Your task to perform on an android device: Check the news Image 0: 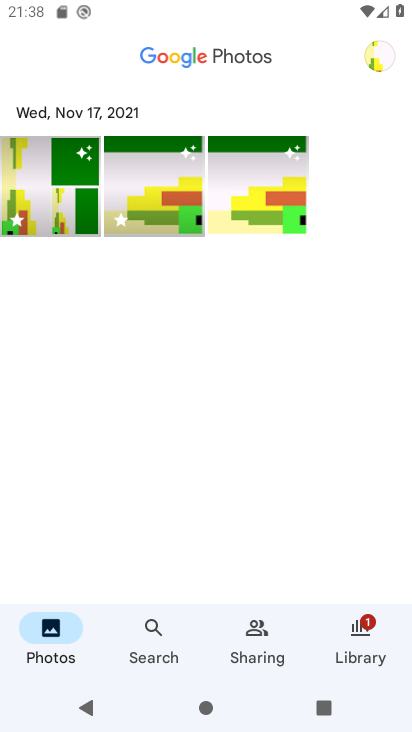
Step 0: press home button
Your task to perform on an android device: Check the news Image 1: 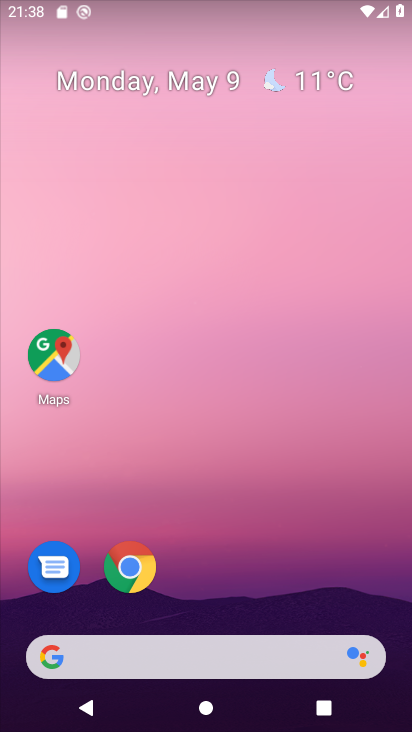
Step 1: drag from (232, 565) to (182, 96)
Your task to perform on an android device: Check the news Image 2: 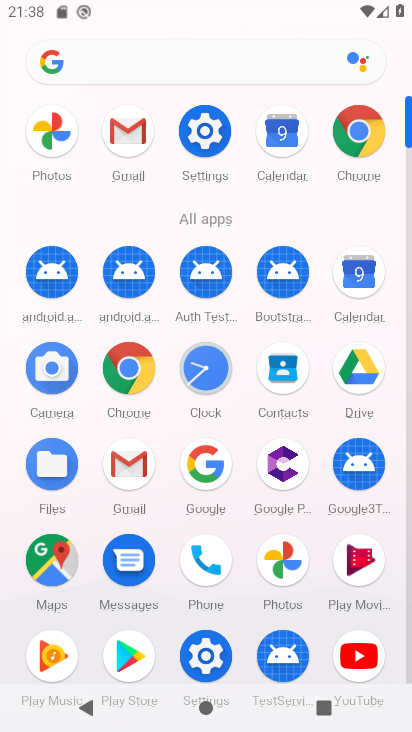
Step 2: click (205, 461)
Your task to perform on an android device: Check the news Image 3: 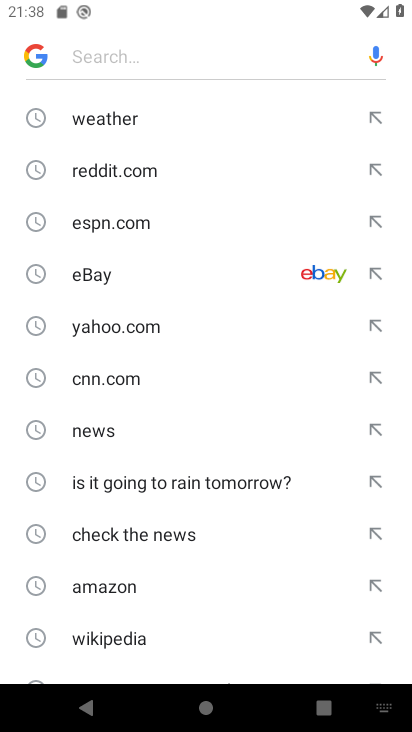
Step 3: click (141, 420)
Your task to perform on an android device: Check the news Image 4: 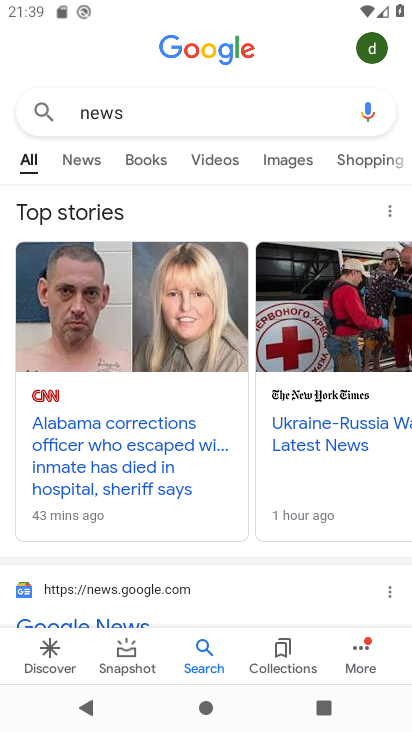
Step 4: task complete